Your task to perform on an android device: Open settings Image 0: 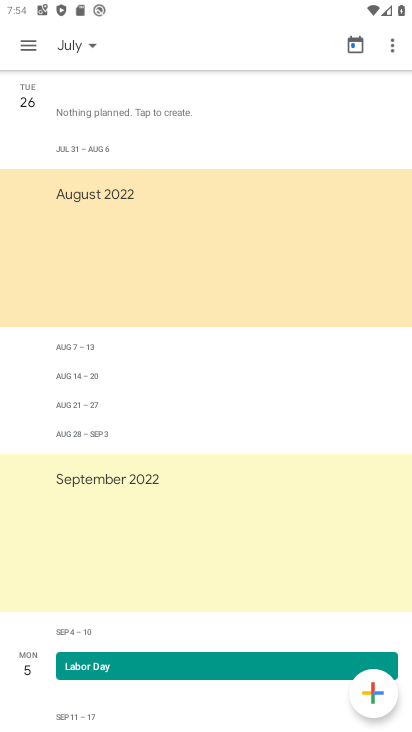
Step 0: press home button
Your task to perform on an android device: Open settings Image 1: 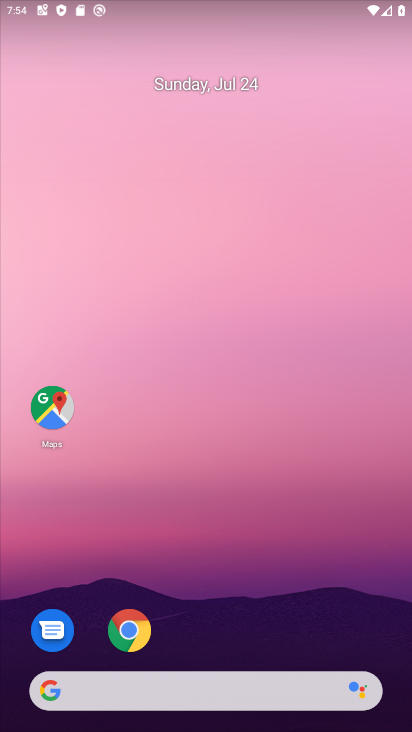
Step 1: drag from (199, 588) to (166, 189)
Your task to perform on an android device: Open settings Image 2: 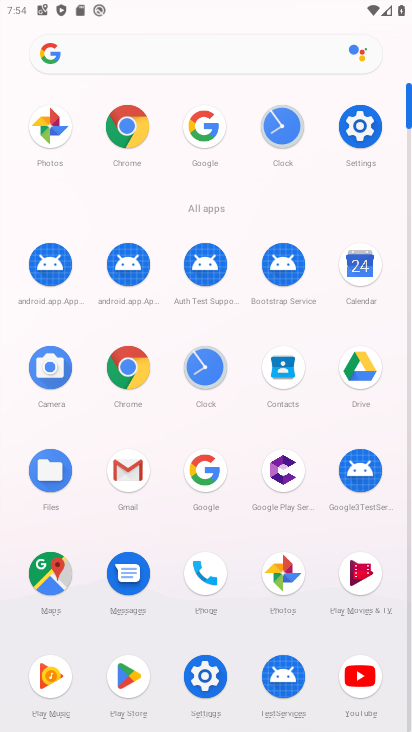
Step 2: click (359, 145)
Your task to perform on an android device: Open settings Image 3: 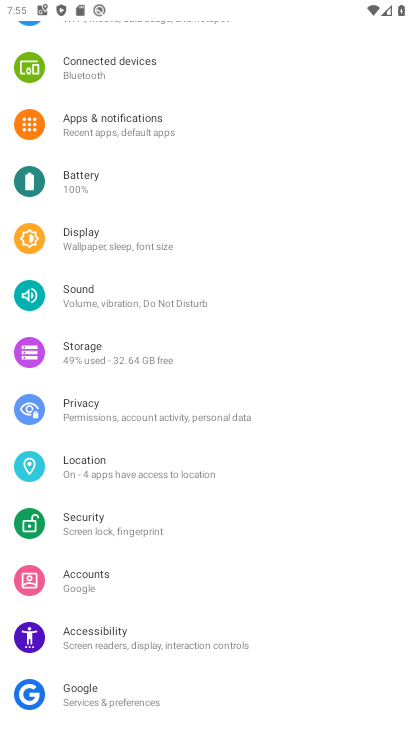
Step 3: task complete